Your task to perform on an android device: Open the map Image 0: 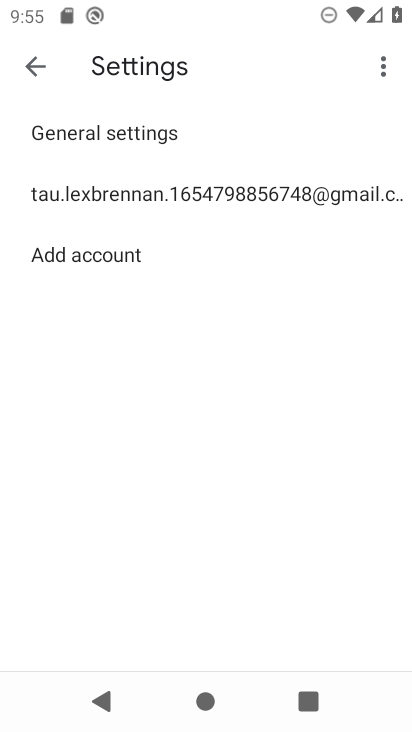
Step 0: press home button
Your task to perform on an android device: Open the map Image 1: 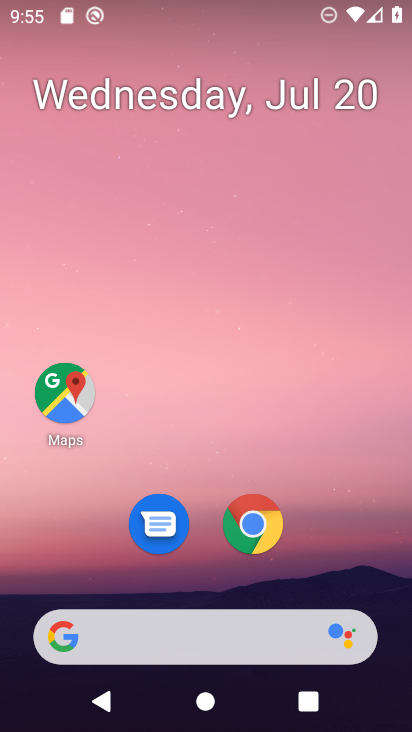
Step 1: click (66, 398)
Your task to perform on an android device: Open the map Image 2: 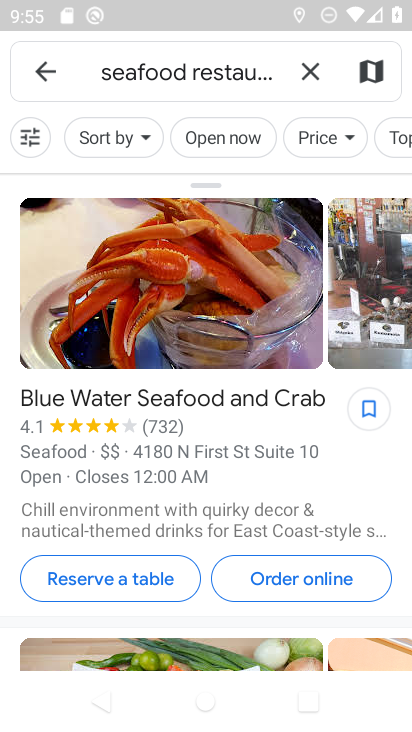
Step 2: click (45, 73)
Your task to perform on an android device: Open the map Image 3: 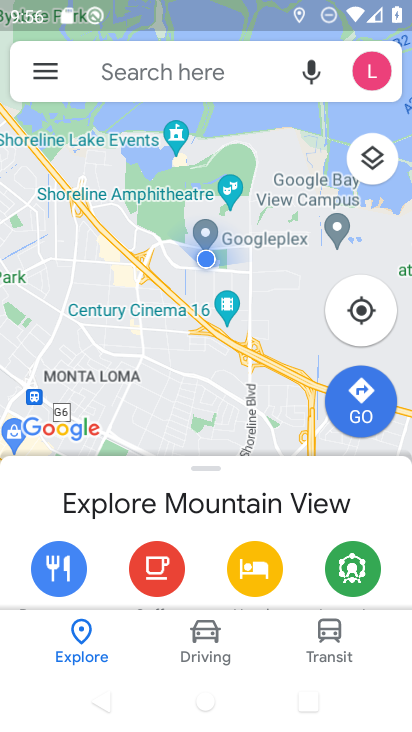
Step 3: task complete